Your task to perform on an android device: clear history in the chrome app Image 0: 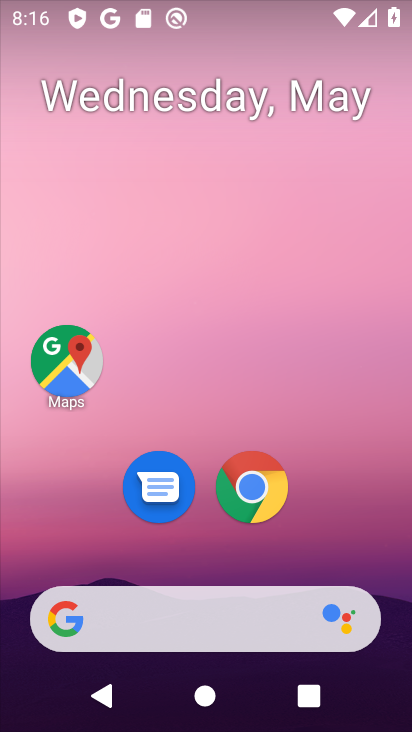
Step 0: click (253, 517)
Your task to perform on an android device: clear history in the chrome app Image 1: 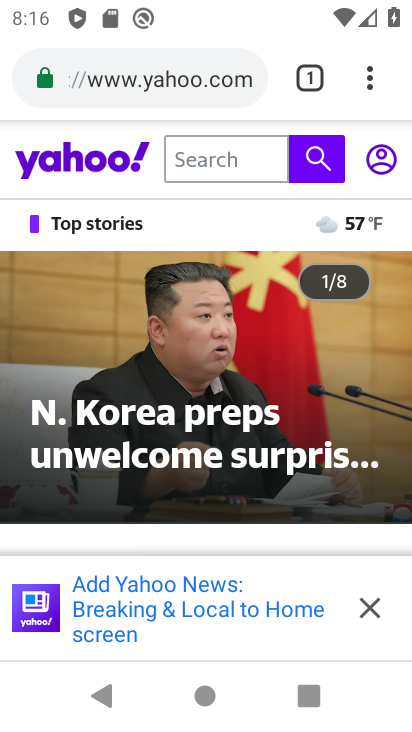
Step 1: drag from (371, 79) to (108, 416)
Your task to perform on an android device: clear history in the chrome app Image 2: 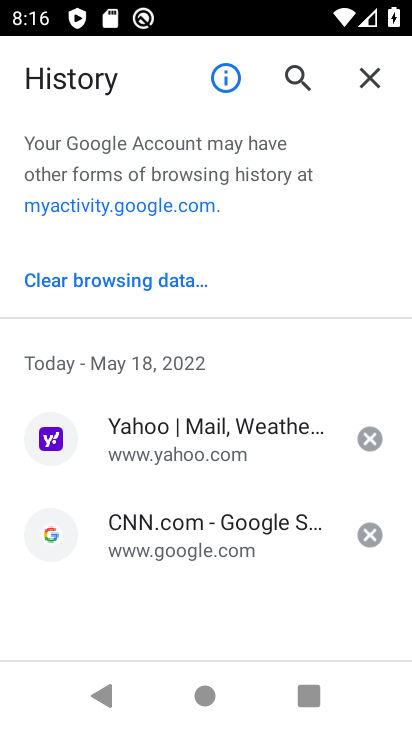
Step 2: click (89, 278)
Your task to perform on an android device: clear history in the chrome app Image 3: 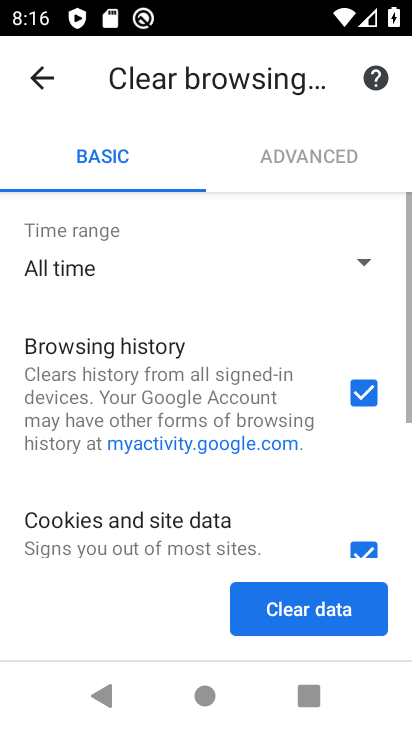
Step 3: drag from (293, 537) to (336, 206)
Your task to perform on an android device: clear history in the chrome app Image 4: 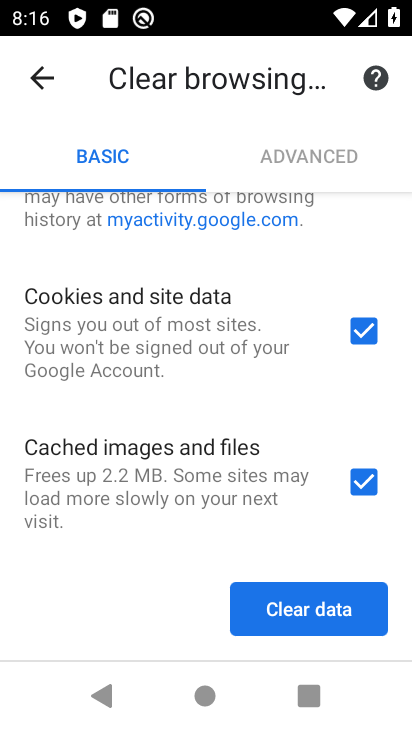
Step 4: click (322, 597)
Your task to perform on an android device: clear history in the chrome app Image 5: 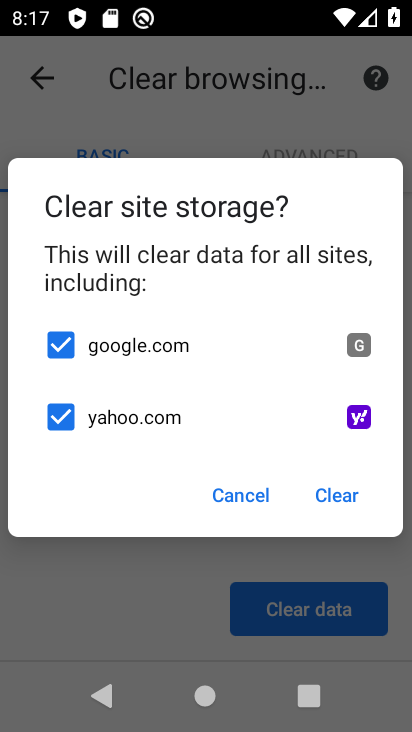
Step 5: click (344, 501)
Your task to perform on an android device: clear history in the chrome app Image 6: 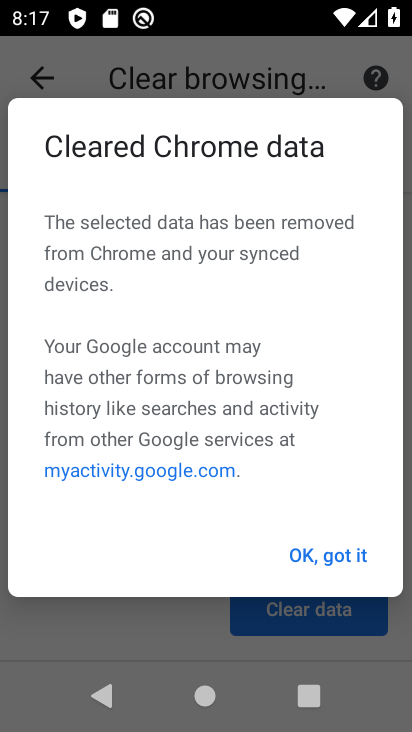
Step 6: click (356, 545)
Your task to perform on an android device: clear history in the chrome app Image 7: 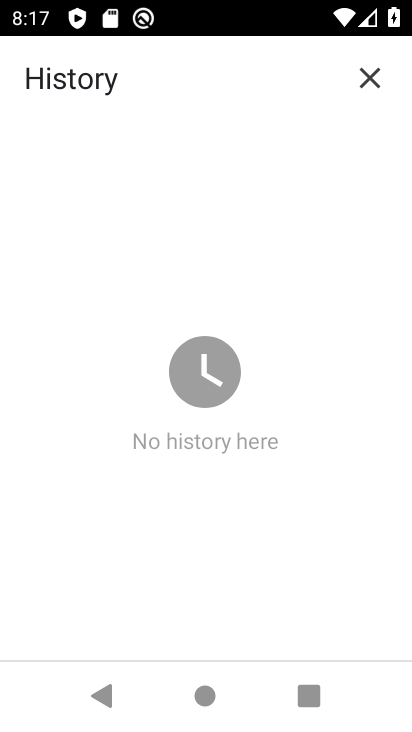
Step 7: task complete